Your task to perform on an android device: turn on data saver in the chrome app Image 0: 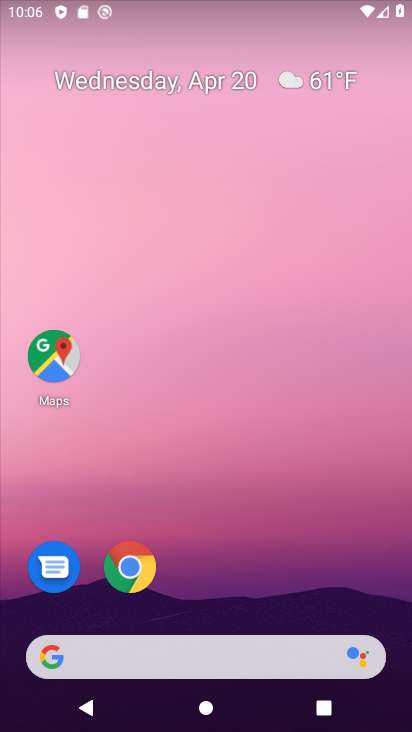
Step 0: click (132, 576)
Your task to perform on an android device: turn on data saver in the chrome app Image 1: 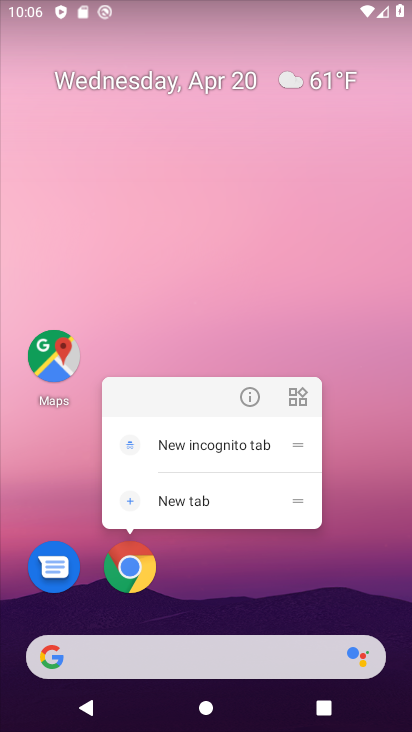
Step 1: click (120, 558)
Your task to perform on an android device: turn on data saver in the chrome app Image 2: 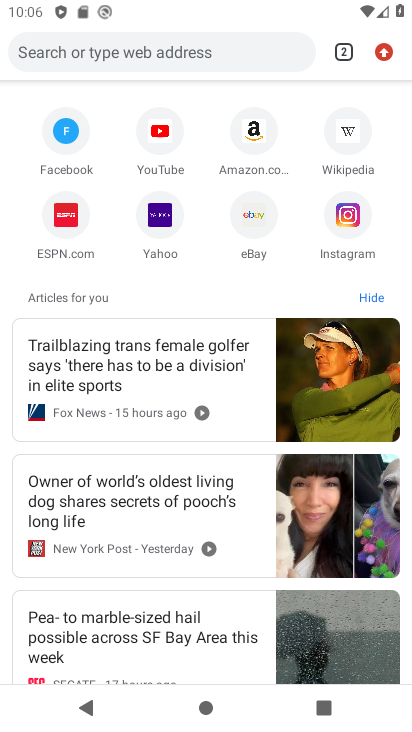
Step 2: drag from (383, 52) to (236, 495)
Your task to perform on an android device: turn on data saver in the chrome app Image 3: 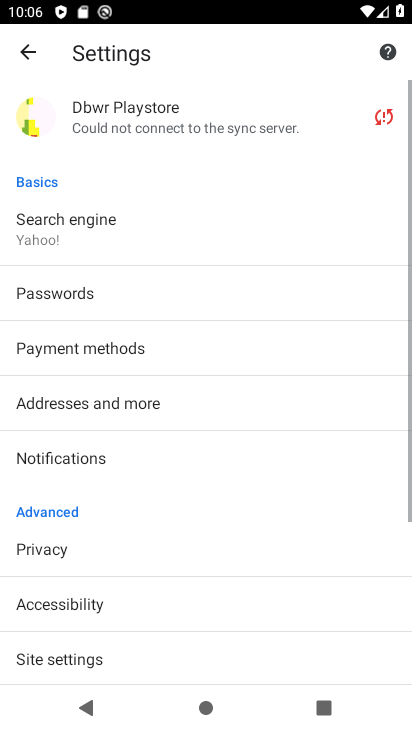
Step 3: drag from (143, 641) to (242, 79)
Your task to perform on an android device: turn on data saver in the chrome app Image 4: 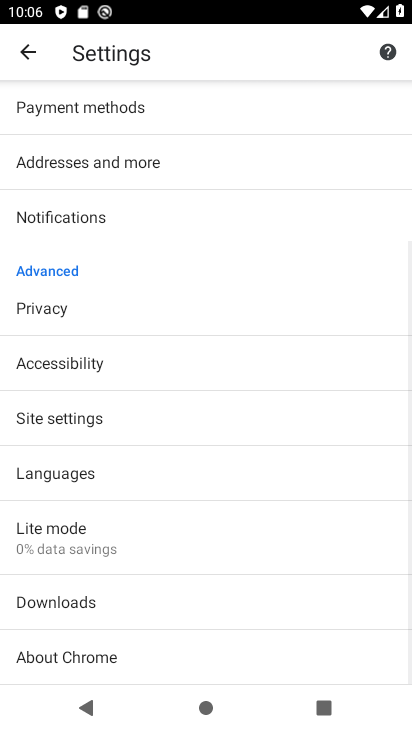
Step 4: click (107, 539)
Your task to perform on an android device: turn on data saver in the chrome app Image 5: 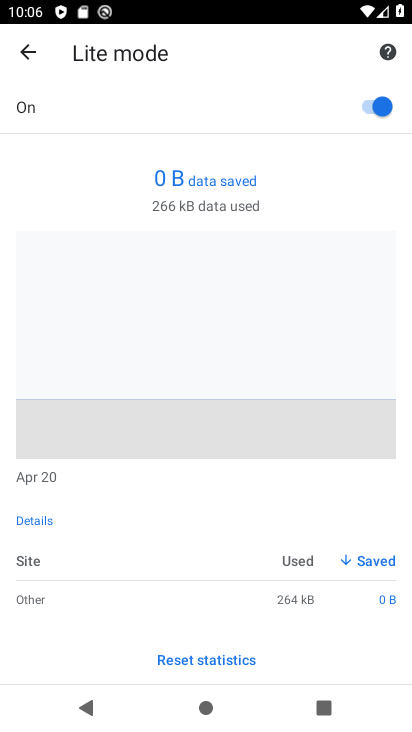
Step 5: task complete